Your task to perform on an android device: Open settings on Google Maps Image 0: 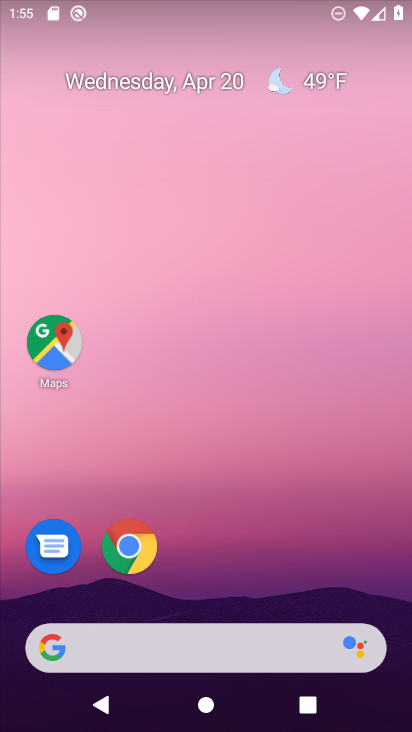
Step 0: click (66, 333)
Your task to perform on an android device: Open settings on Google Maps Image 1: 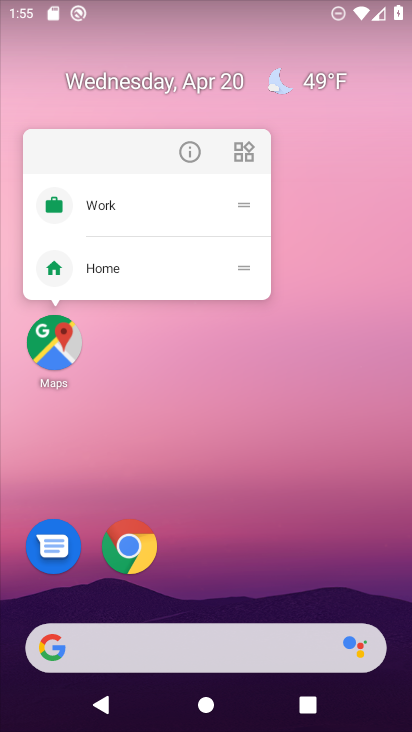
Step 1: click (60, 342)
Your task to perform on an android device: Open settings on Google Maps Image 2: 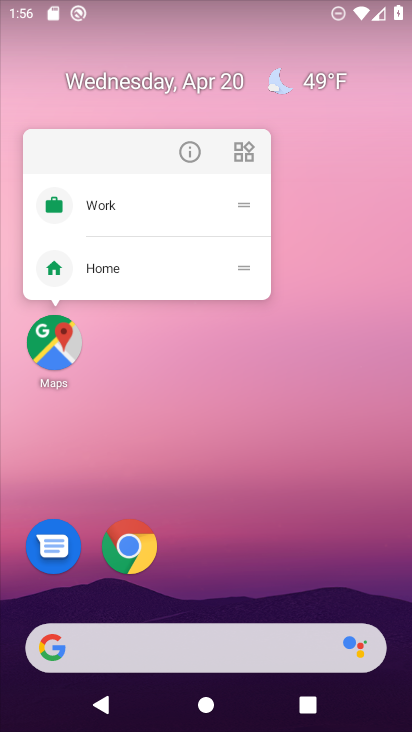
Step 2: click (60, 346)
Your task to perform on an android device: Open settings on Google Maps Image 3: 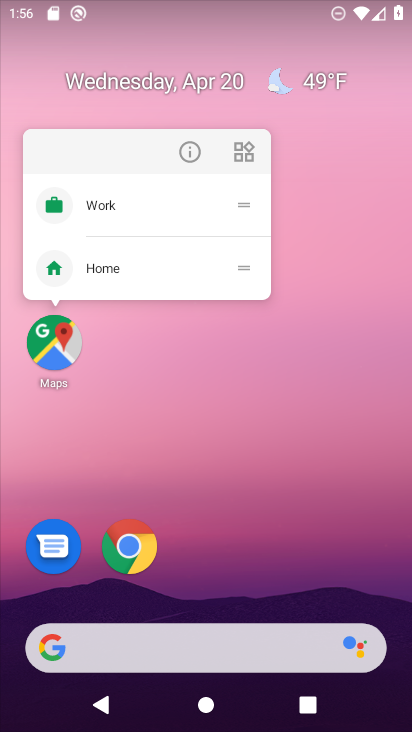
Step 3: click (60, 346)
Your task to perform on an android device: Open settings on Google Maps Image 4: 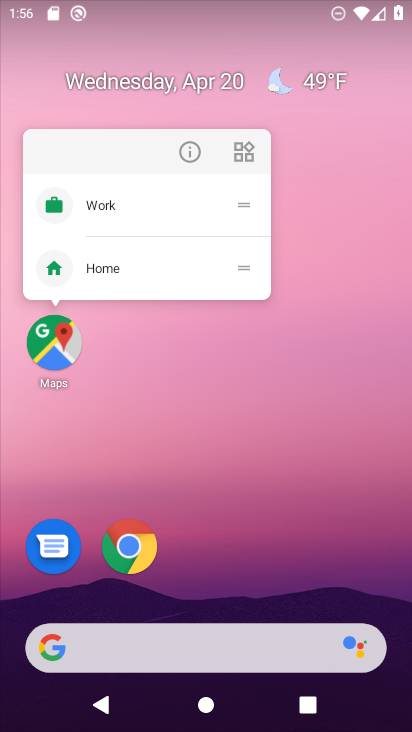
Step 4: click (58, 343)
Your task to perform on an android device: Open settings on Google Maps Image 5: 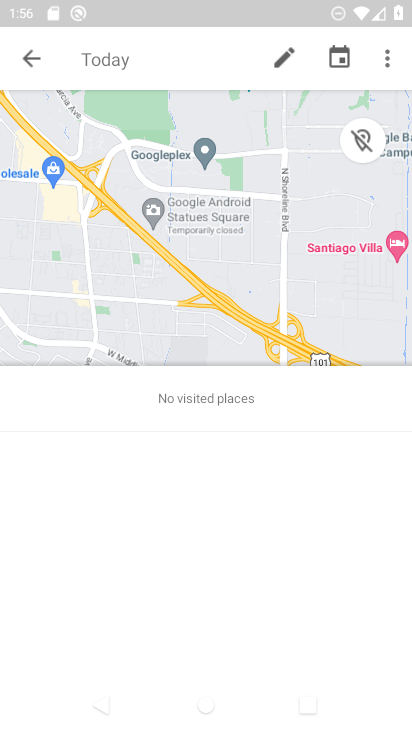
Step 5: click (383, 61)
Your task to perform on an android device: Open settings on Google Maps Image 6: 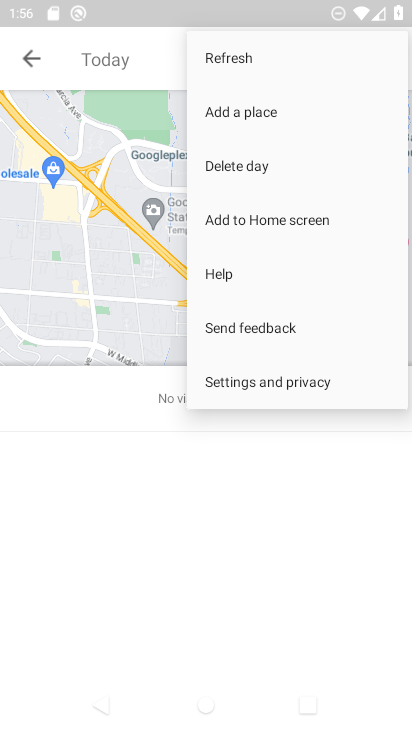
Step 6: click (34, 53)
Your task to perform on an android device: Open settings on Google Maps Image 7: 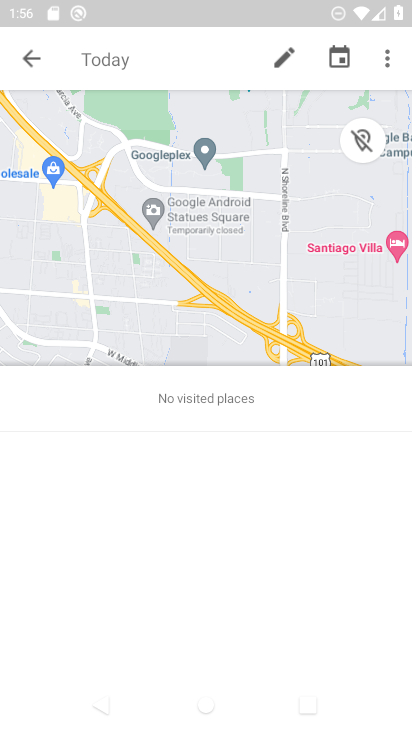
Step 7: click (34, 53)
Your task to perform on an android device: Open settings on Google Maps Image 8: 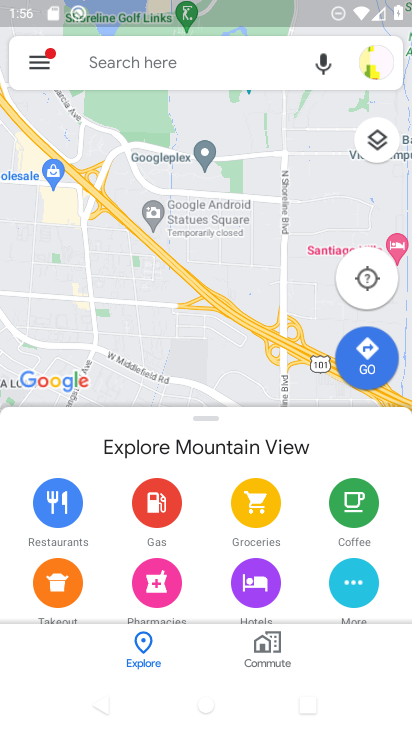
Step 8: click (39, 59)
Your task to perform on an android device: Open settings on Google Maps Image 9: 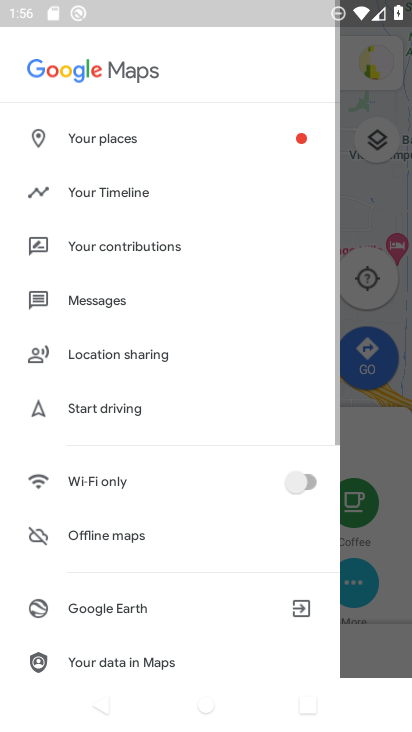
Step 9: drag from (140, 638) to (283, 49)
Your task to perform on an android device: Open settings on Google Maps Image 10: 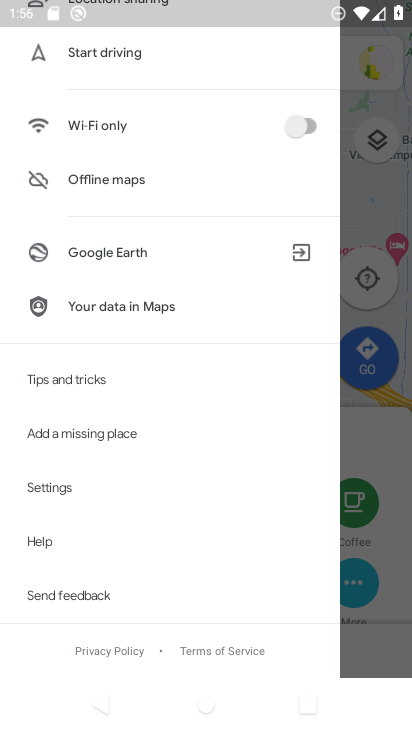
Step 10: click (54, 494)
Your task to perform on an android device: Open settings on Google Maps Image 11: 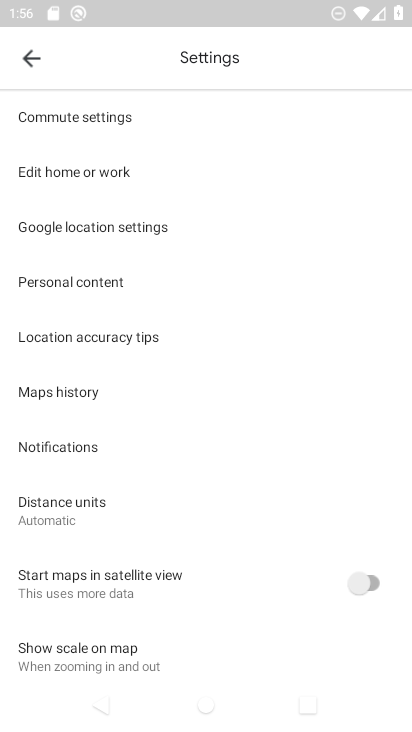
Step 11: task complete